Your task to perform on an android device: clear all cookies in the chrome app Image 0: 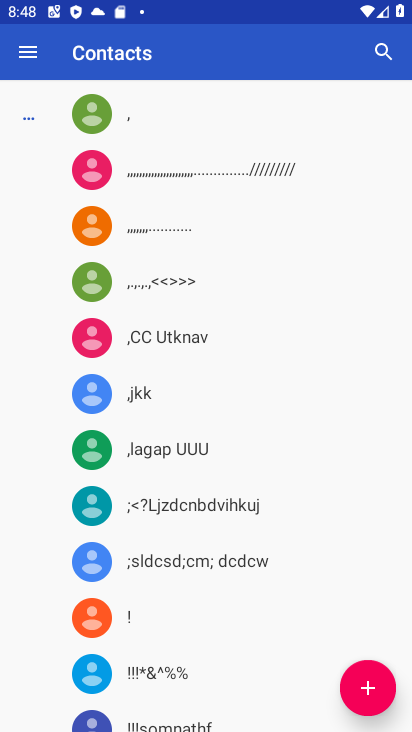
Step 0: press home button
Your task to perform on an android device: clear all cookies in the chrome app Image 1: 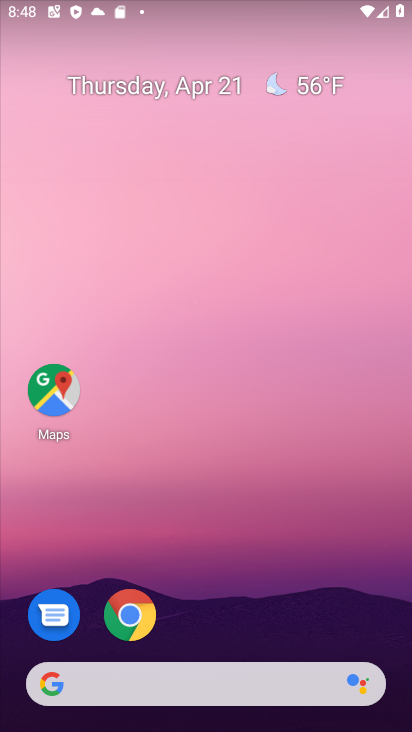
Step 1: click (130, 614)
Your task to perform on an android device: clear all cookies in the chrome app Image 2: 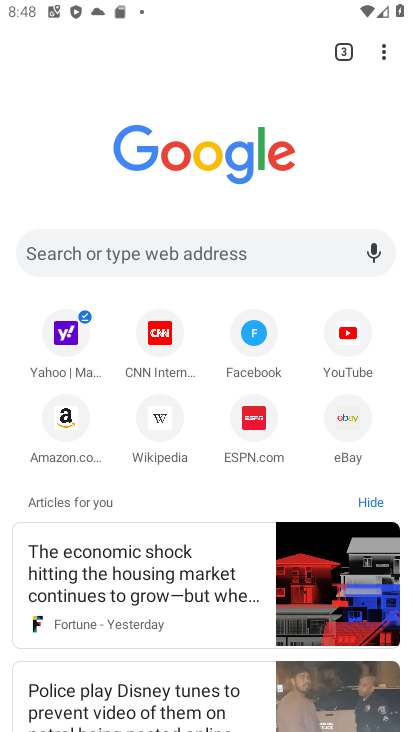
Step 2: click (379, 53)
Your task to perform on an android device: clear all cookies in the chrome app Image 3: 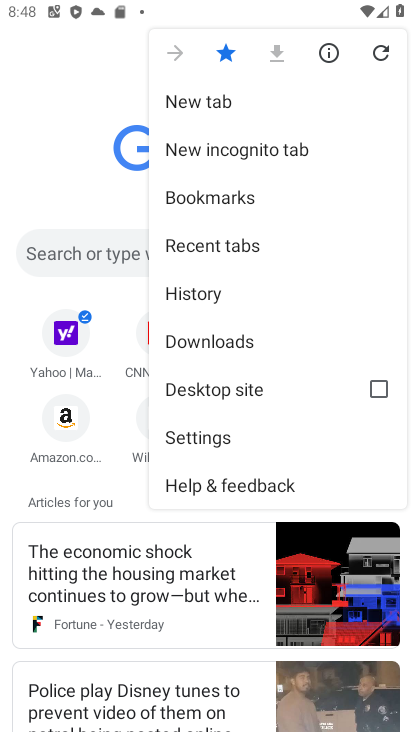
Step 3: click (224, 437)
Your task to perform on an android device: clear all cookies in the chrome app Image 4: 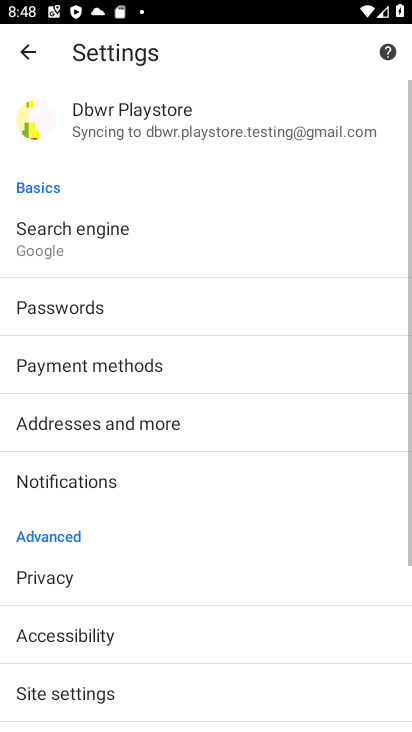
Step 4: drag from (214, 481) to (205, 149)
Your task to perform on an android device: clear all cookies in the chrome app Image 5: 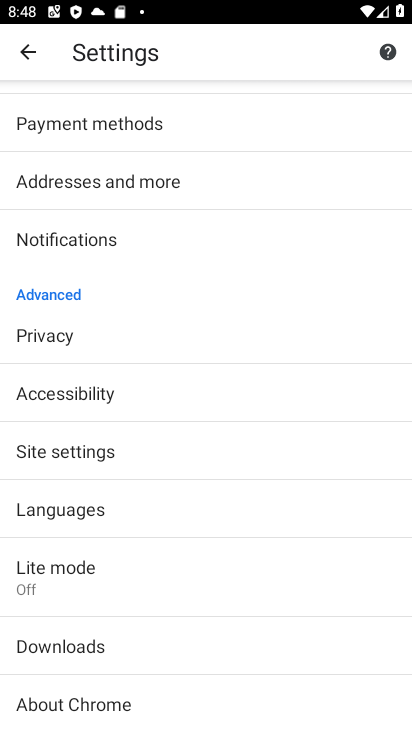
Step 5: click (63, 346)
Your task to perform on an android device: clear all cookies in the chrome app Image 6: 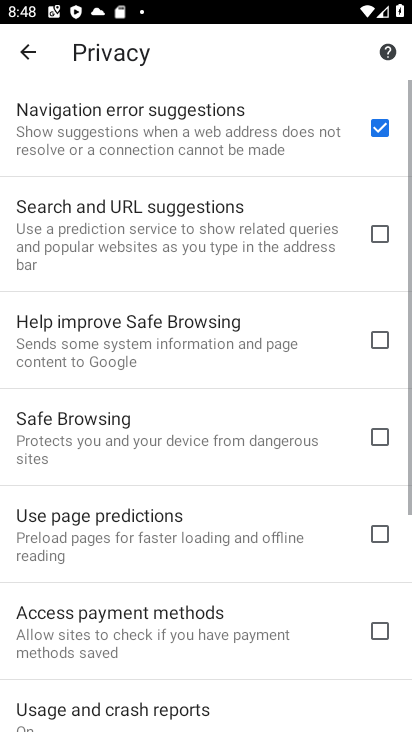
Step 6: drag from (262, 613) to (254, 5)
Your task to perform on an android device: clear all cookies in the chrome app Image 7: 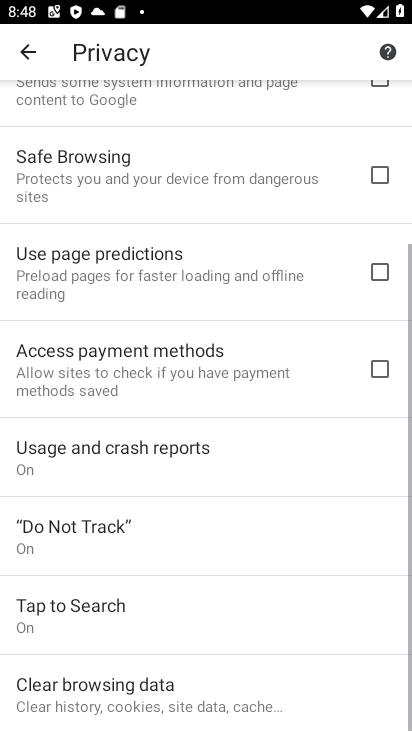
Step 7: click (147, 679)
Your task to perform on an android device: clear all cookies in the chrome app Image 8: 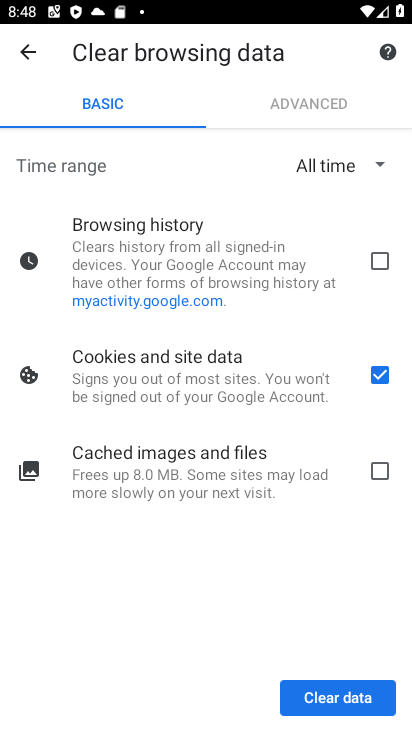
Step 8: click (323, 700)
Your task to perform on an android device: clear all cookies in the chrome app Image 9: 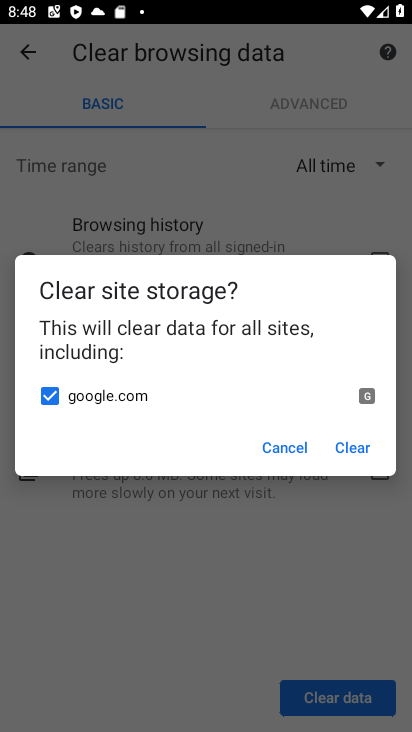
Step 9: click (359, 438)
Your task to perform on an android device: clear all cookies in the chrome app Image 10: 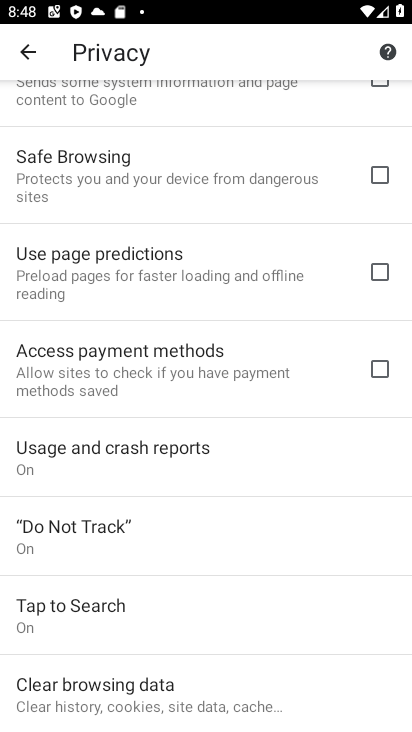
Step 10: task complete